Your task to perform on an android device: Go to privacy settings Image 0: 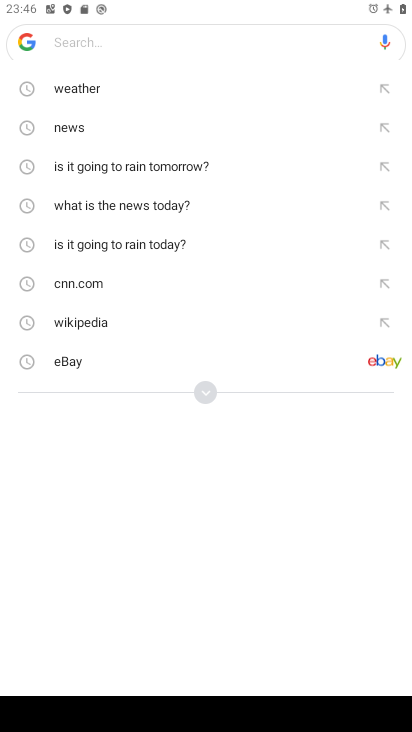
Step 0: press home button
Your task to perform on an android device: Go to privacy settings Image 1: 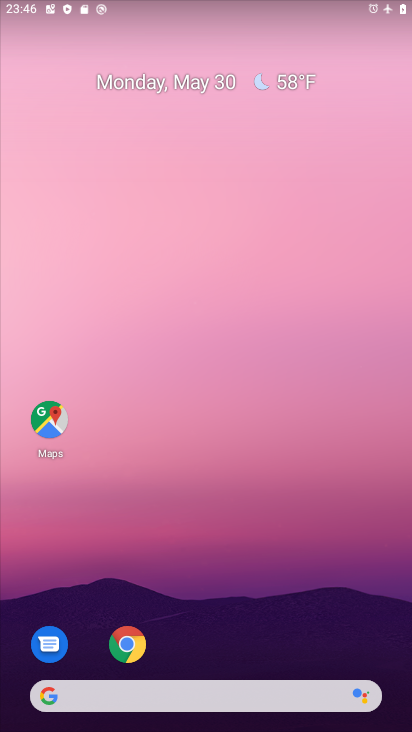
Step 1: drag from (359, 633) to (354, 46)
Your task to perform on an android device: Go to privacy settings Image 2: 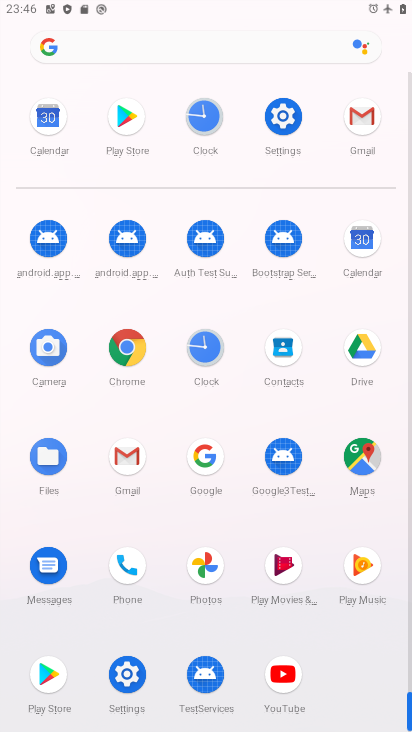
Step 2: click (130, 675)
Your task to perform on an android device: Go to privacy settings Image 3: 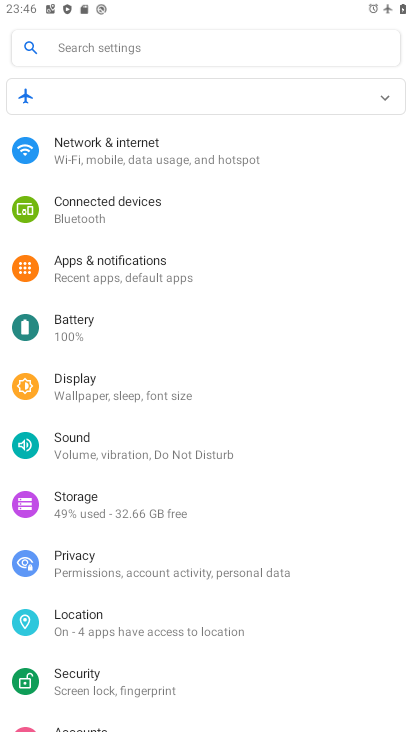
Step 3: click (65, 563)
Your task to perform on an android device: Go to privacy settings Image 4: 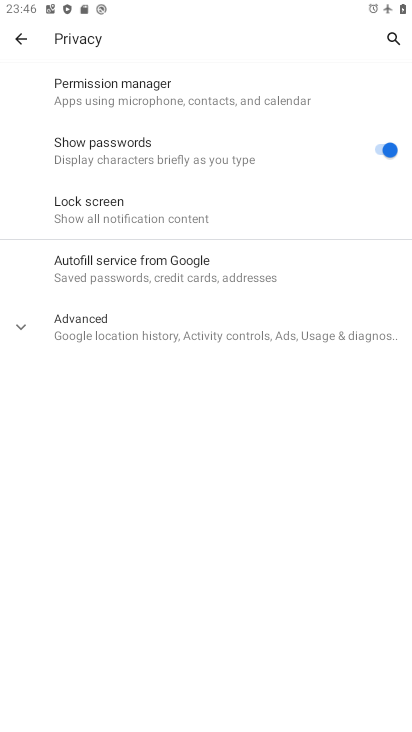
Step 4: click (19, 325)
Your task to perform on an android device: Go to privacy settings Image 5: 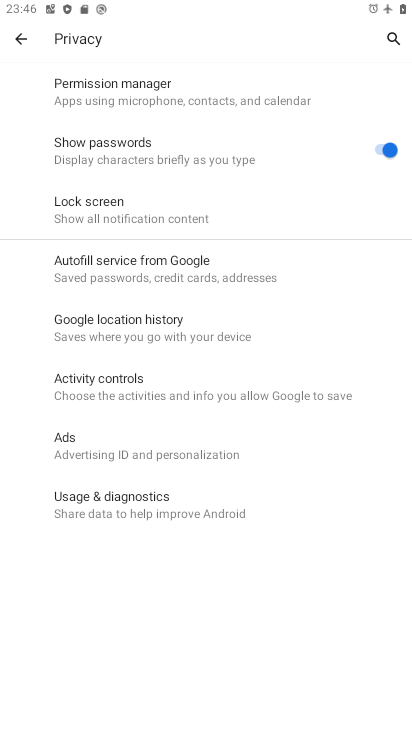
Step 5: task complete